Your task to perform on an android device: set an alarm Image 0: 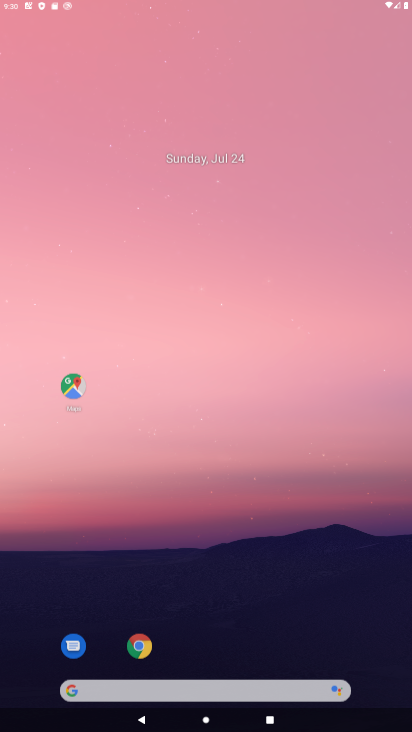
Step 0: click (190, 163)
Your task to perform on an android device: set an alarm Image 1: 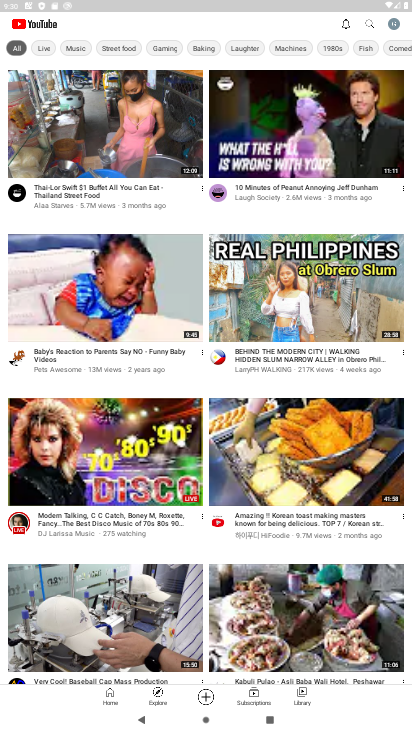
Step 1: press home button
Your task to perform on an android device: set an alarm Image 2: 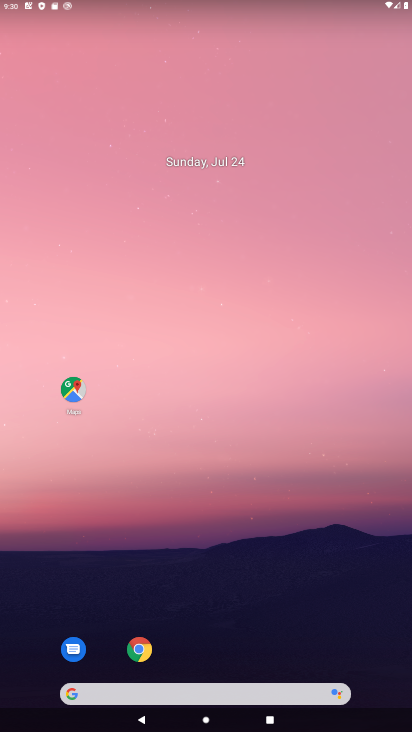
Step 2: drag from (166, 659) to (176, 180)
Your task to perform on an android device: set an alarm Image 3: 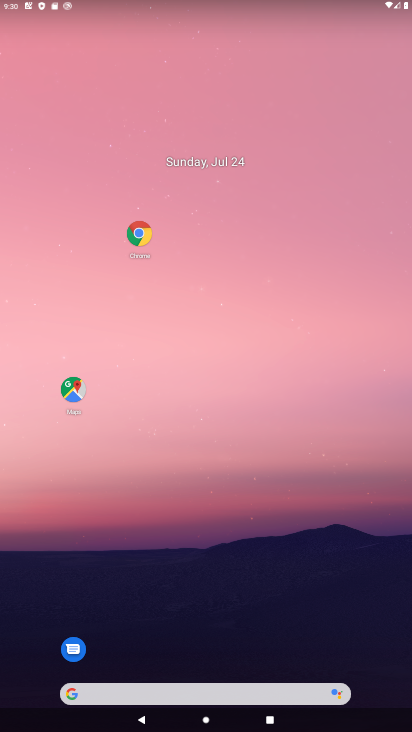
Step 3: click (285, 643)
Your task to perform on an android device: set an alarm Image 4: 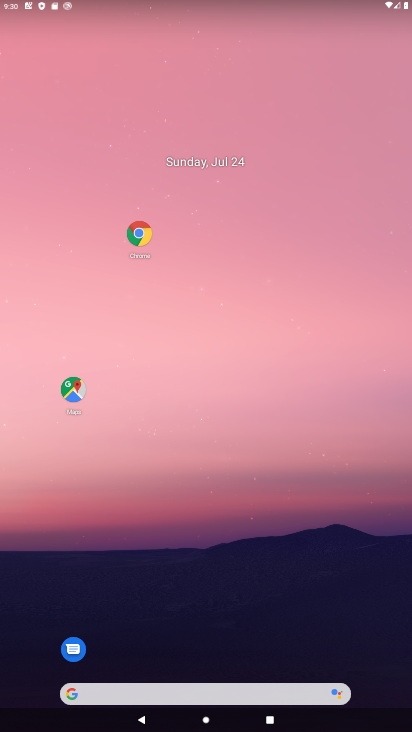
Step 4: drag from (211, 654) to (211, 42)
Your task to perform on an android device: set an alarm Image 5: 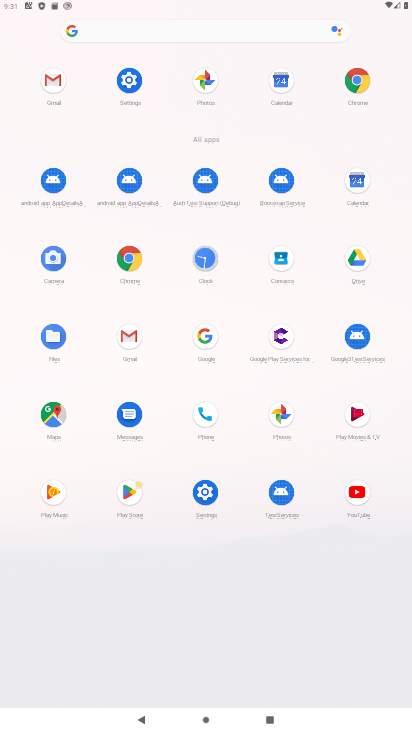
Step 5: click (208, 273)
Your task to perform on an android device: set an alarm Image 6: 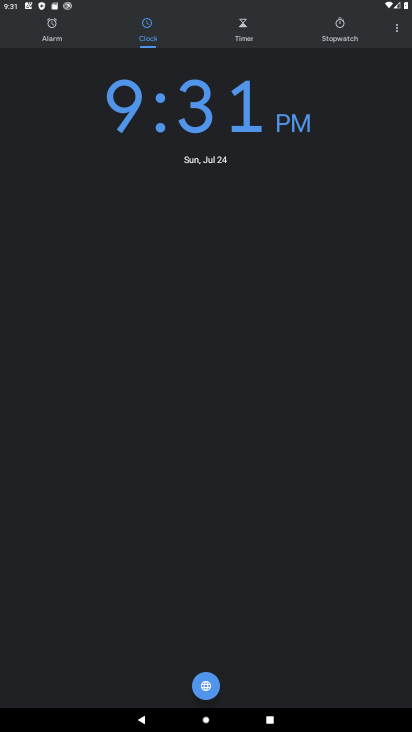
Step 6: click (37, 33)
Your task to perform on an android device: set an alarm Image 7: 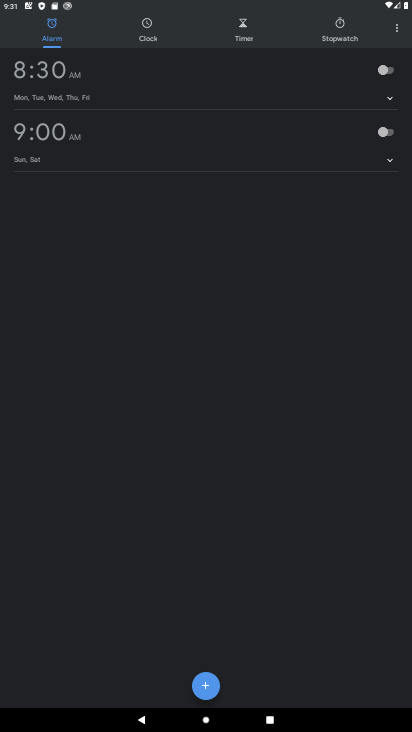
Step 7: click (389, 67)
Your task to perform on an android device: set an alarm Image 8: 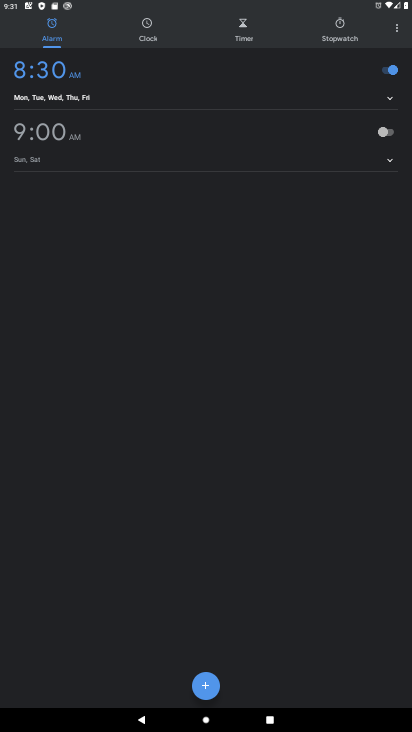
Step 8: task complete